Your task to perform on an android device: Open the calendar and show me this week's events Image 0: 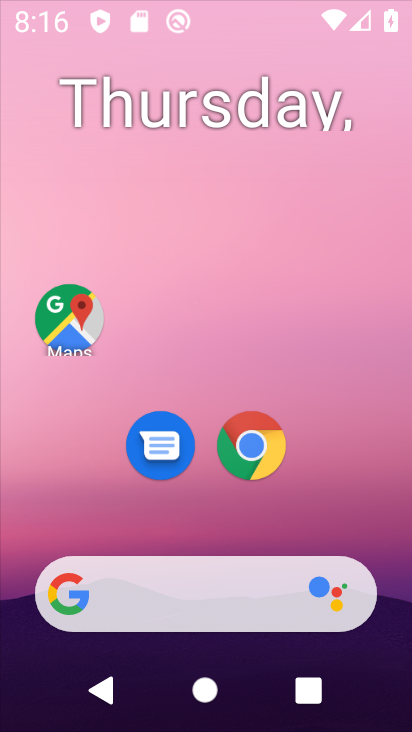
Step 0: drag from (205, 512) to (98, 3)
Your task to perform on an android device: Open the calendar and show me this week's events Image 1: 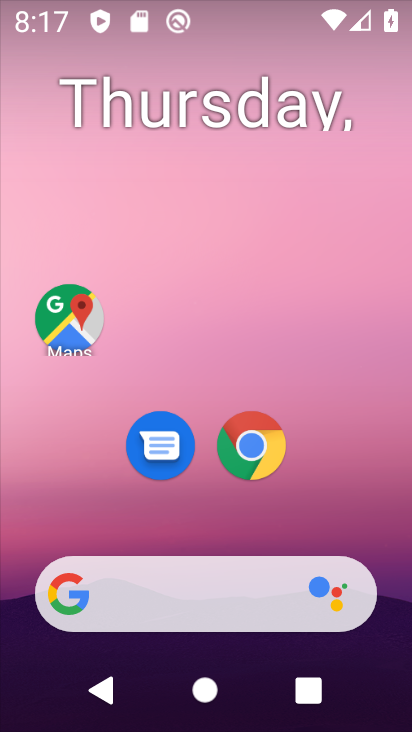
Step 1: drag from (197, 509) to (107, 14)
Your task to perform on an android device: Open the calendar and show me this week's events Image 2: 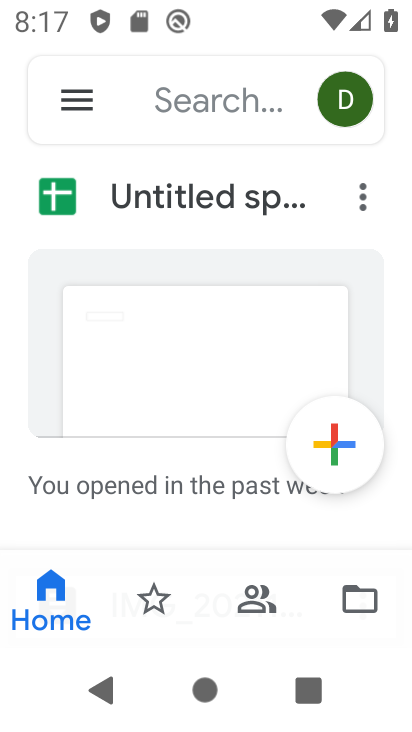
Step 2: press home button
Your task to perform on an android device: Open the calendar and show me this week's events Image 3: 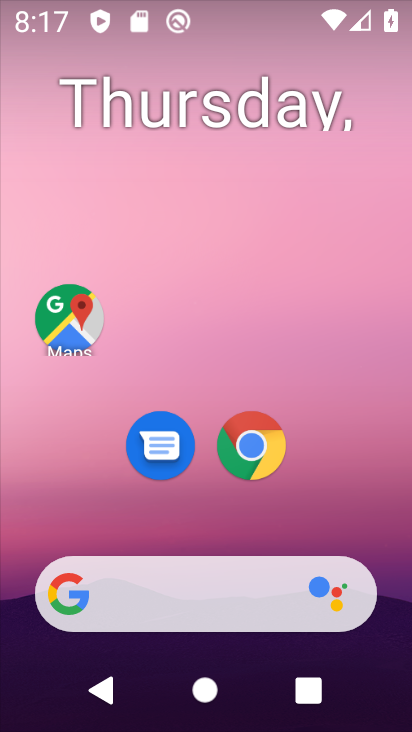
Step 3: drag from (218, 502) to (269, 0)
Your task to perform on an android device: Open the calendar and show me this week's events Image 4: 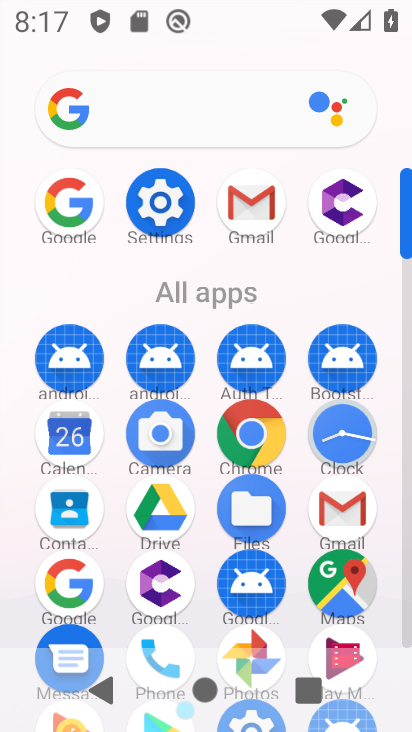
Step 4: click (87, 440)
Your task to perform on an android device: Open the calendar and show me this week's events Image 5: 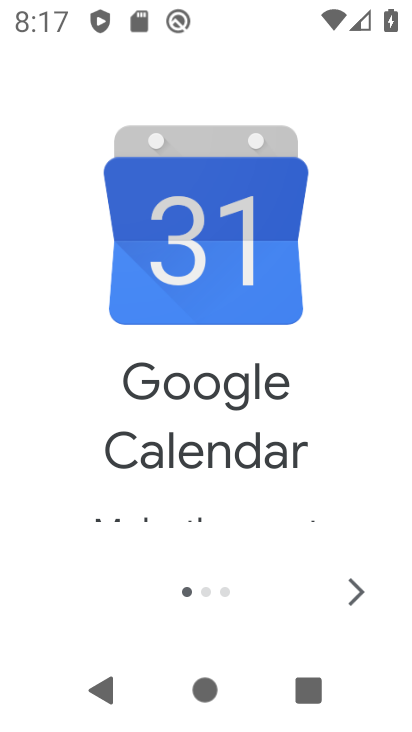
Step 5: click (351, 596)
Your task to perform on an android device: Open the calendar and show me this week's events Image 6: 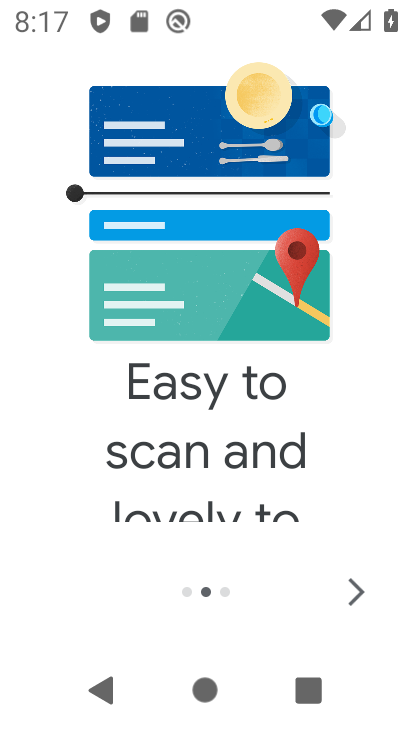
Step 6: click (362, 594)
Your task to perform on an android device: Open the calendar and show me this week's events Image 7: 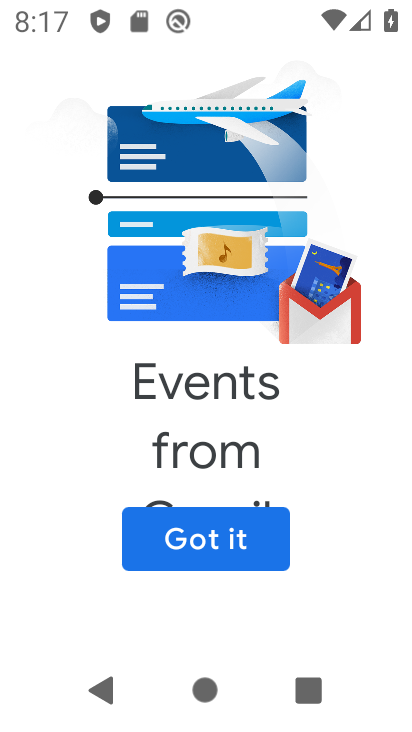
Step 7: click (262, 548)
Your task to perform on an android device: Open the calendar and show me this week's events Image 8: 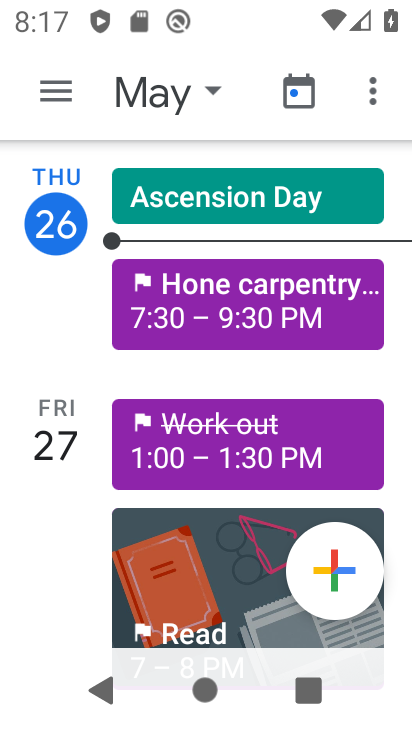
Step 8: click (27, 82)
Your task to perform on an android device: Open the calendar and show me this week's events Image 9: 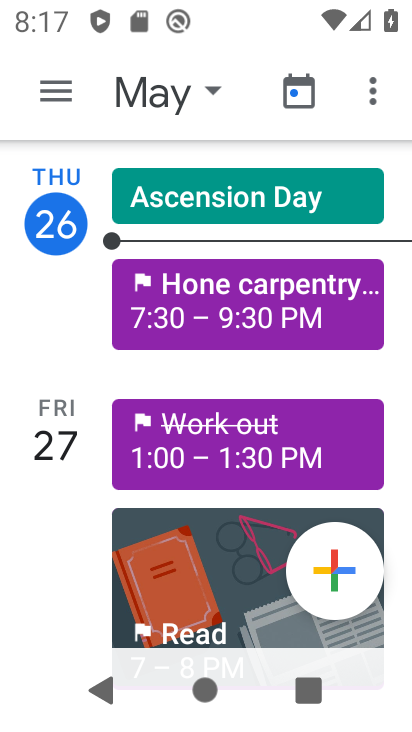
Step 9: click (43, 92)
Your task to perform on an android device: Open the calendar and show me this week's events Image 10: 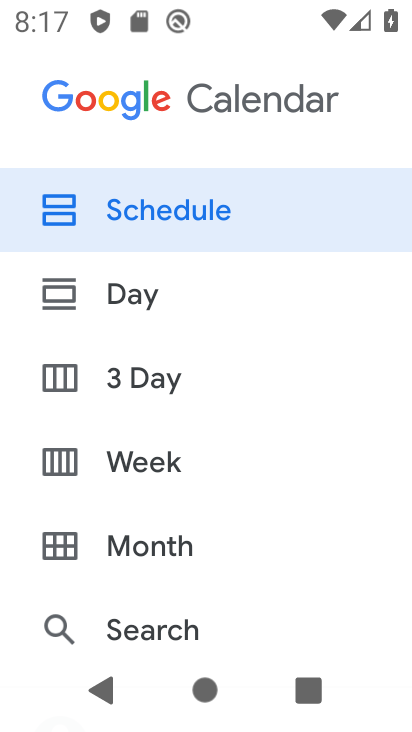
Step 10: drag from (278, 511) to (237, 64)
Your task to perform on an android device: Open the calendar and show me this week's events Image 11: 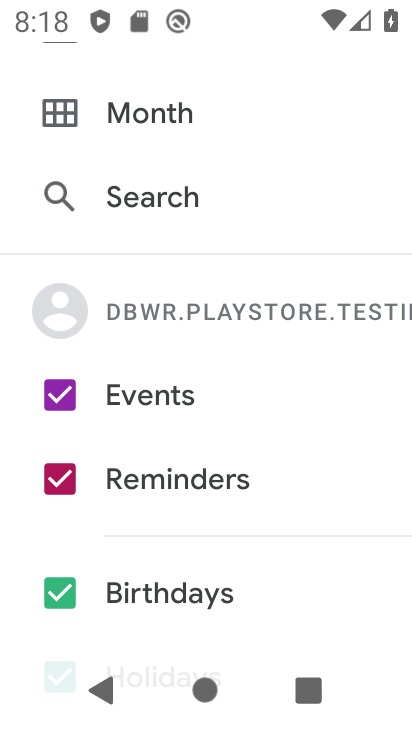
Step 11: drag from (155, 224) to (143, 600)
Your task to perform on an android device: Open the calendar and show me this week's events Image 12: 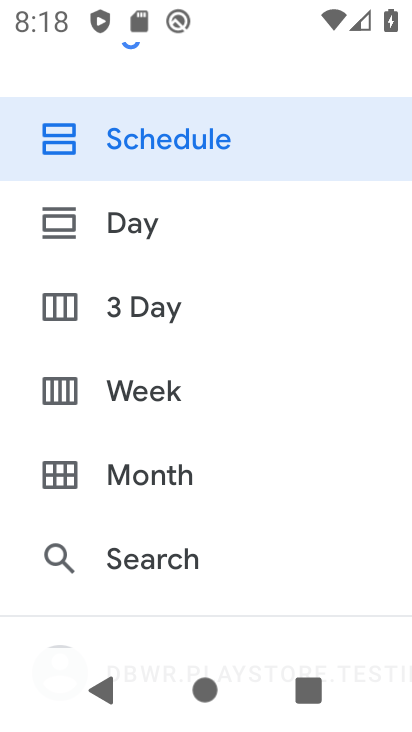
Step 12: click (146, 413)
Your task to perform on an android device: Open the calendar and show me this week's events Image 13: 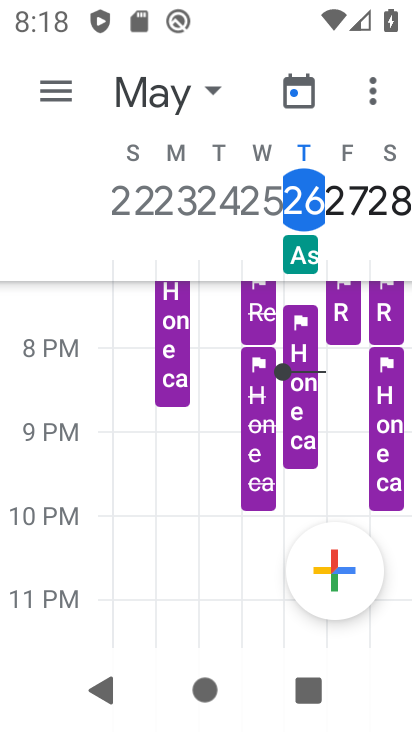
Step 13: task complete